Your task to perform on an android device: What's on my calendar tomorrow? Image 0: 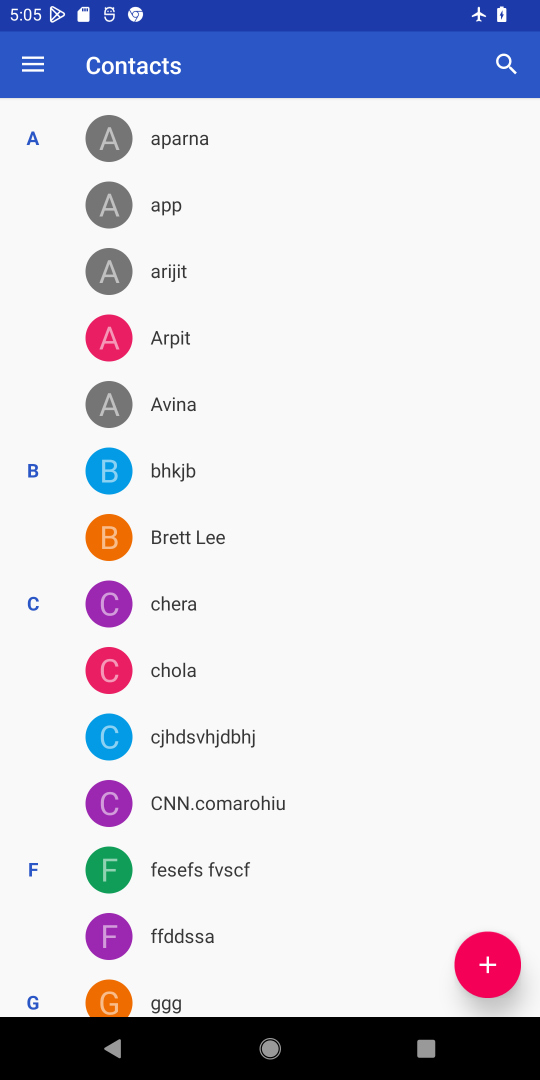
Step 0: press home button
Your task to perform on an android device: What's on my calendar tomorrow? Image 1: 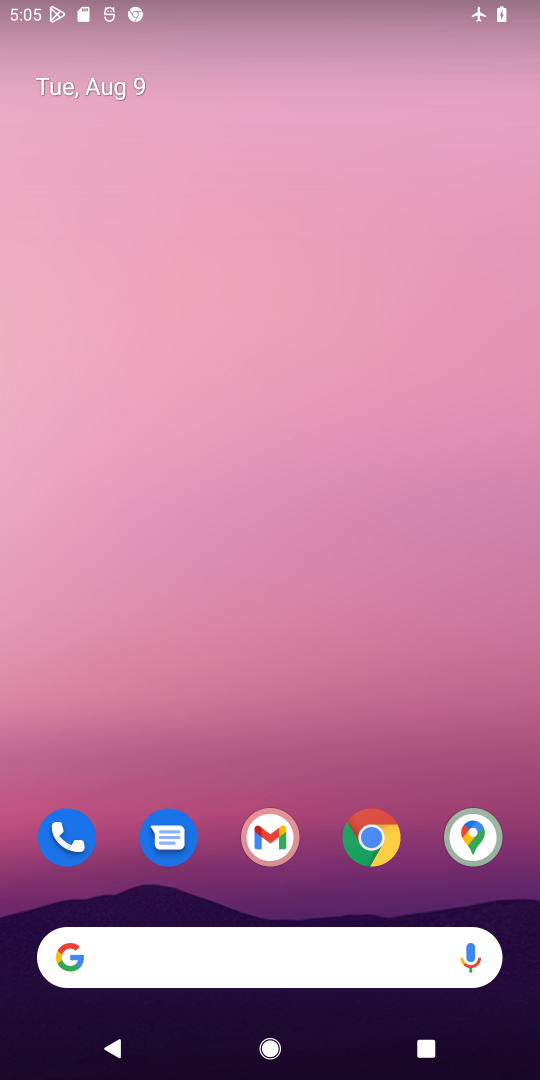
Step 1: drag from (262, 894) to (289, 197)
Your task to perform on an android device: What's on my calendar tomorrow? Image 2: 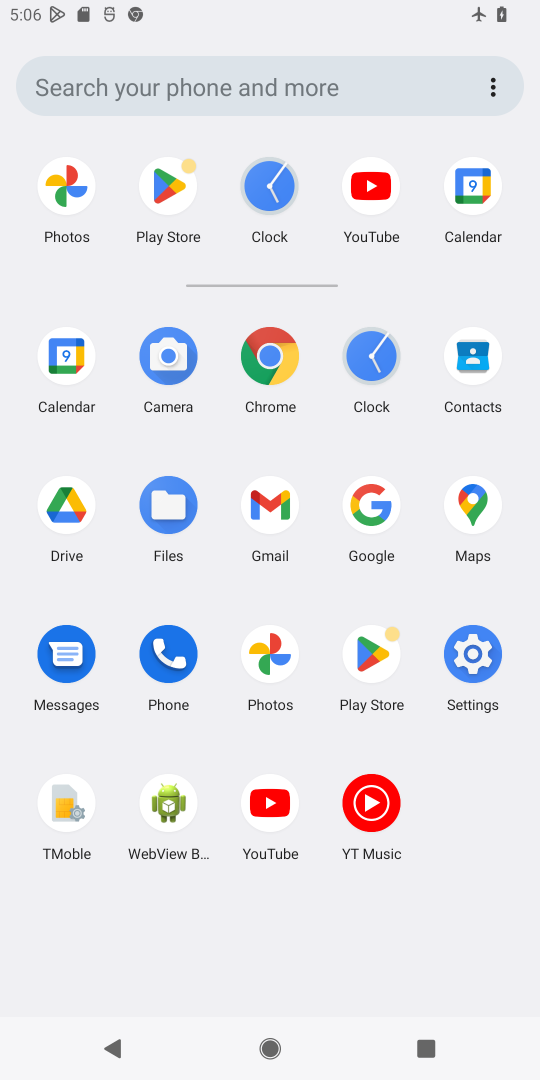
Step 2: click (485, 191)
Your task to perform on an android device: What's on my calendar tomorrow? Image 3: 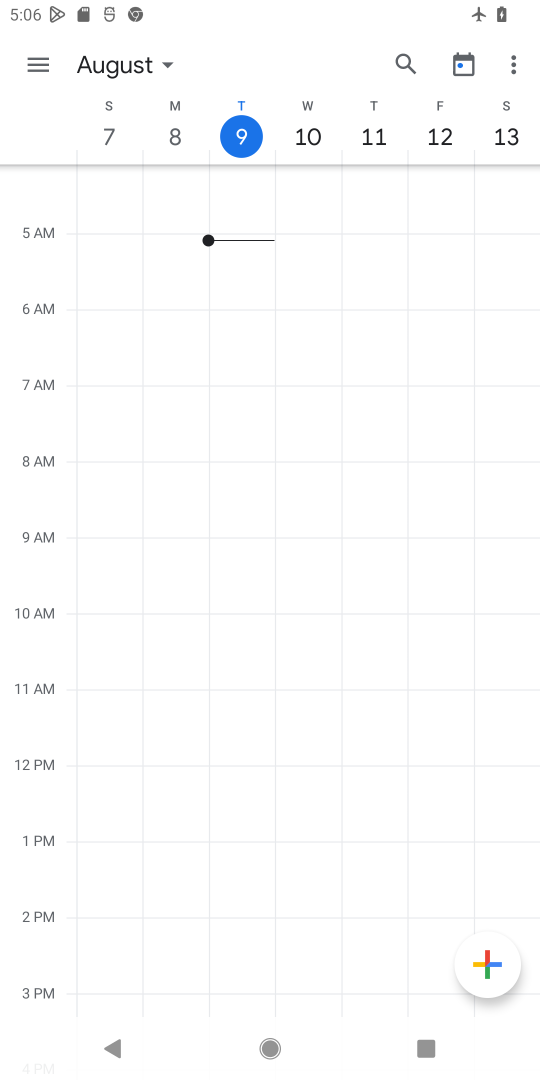
Step 3: click (297, 126)
Your task to perform on an android device: What's on my calendar tomorrow? Image 4: 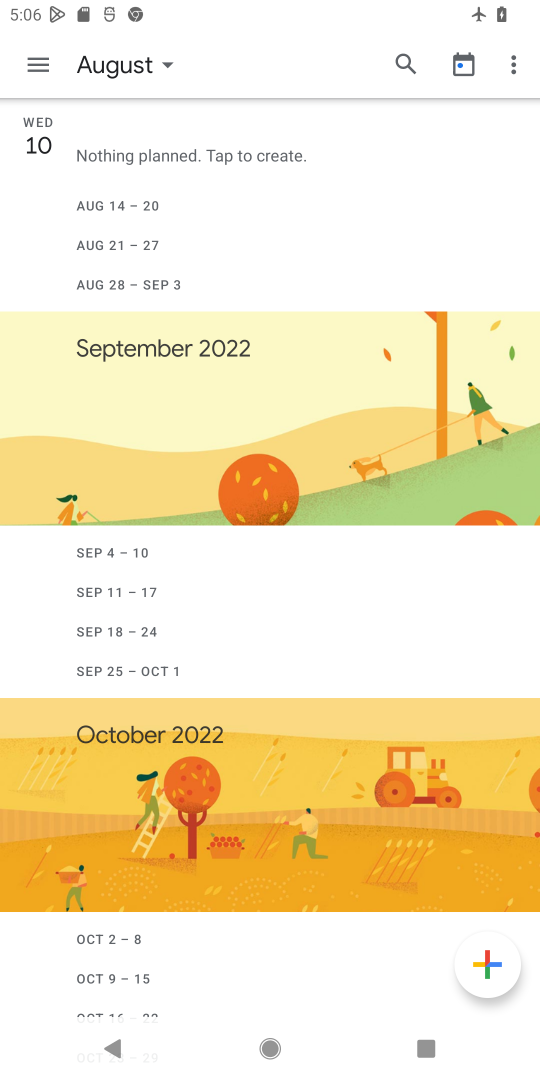
Step 4: task complete